Your task to perform on an android device: Go to CNN.com Image 0: 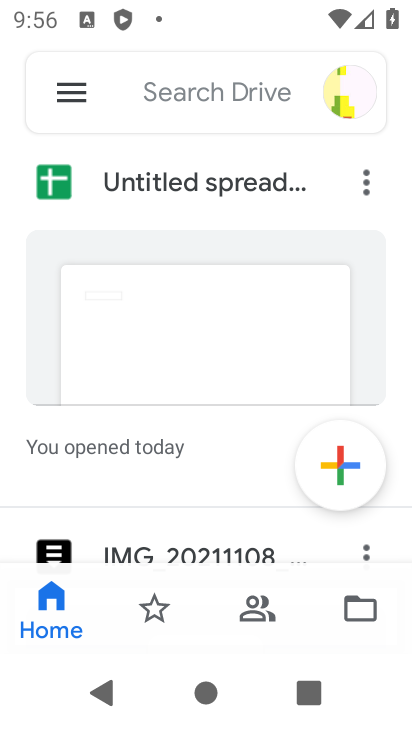
Step 0: press home button
Your task to perform on an android device: Go to CNN.com Image 1: 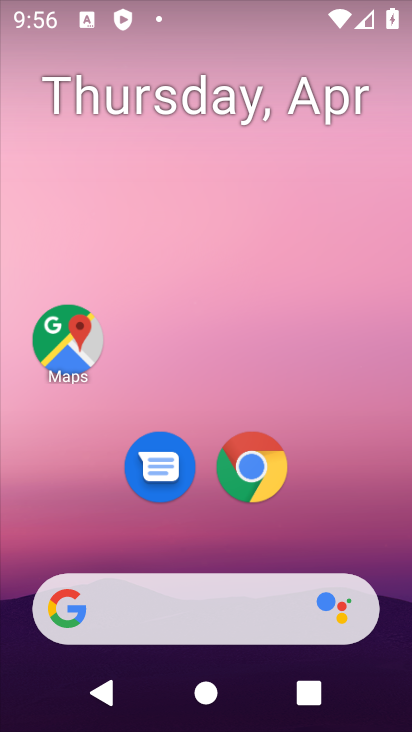
Step 1: click (245, 614)
Your task to perform on an android device: Go to CNN.com Image 2: 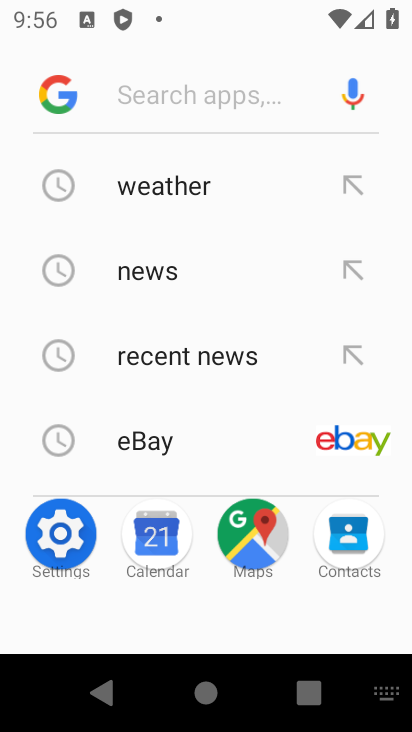
Step 2: type "cnn.com"
Your task to perform on an android device: Go to CNN.com Image 3: 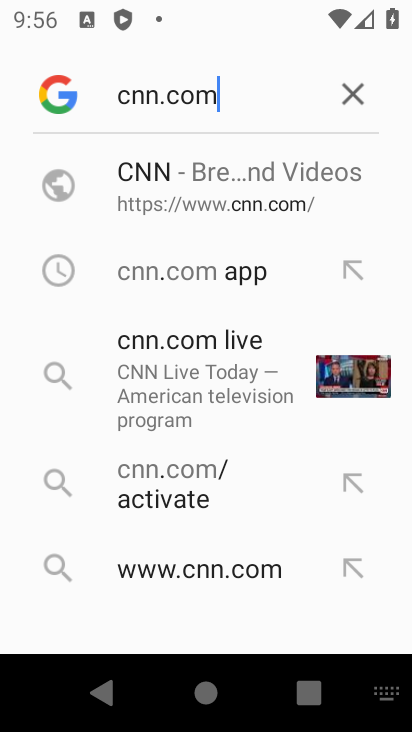
Step 3: click (291, 177)
Your task to perform on an android device: Go to CNN.com Image 4: 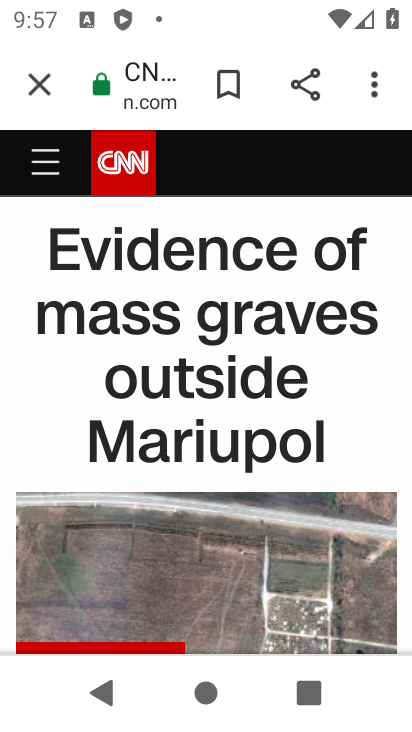
Step 4: task complete